Your task to perform on an android device: choose inbox layout in the gmail app Image 0: 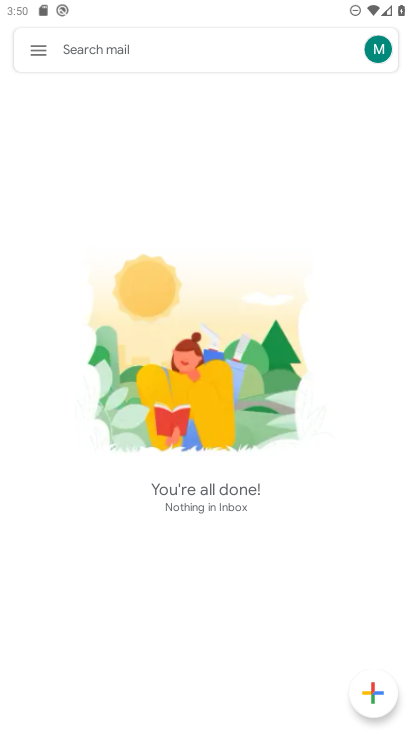
Step 0: drag from (152, 146) to (162, 512)
Your task to perform on an android device: choose inbox layout in the gmail app Image 1: 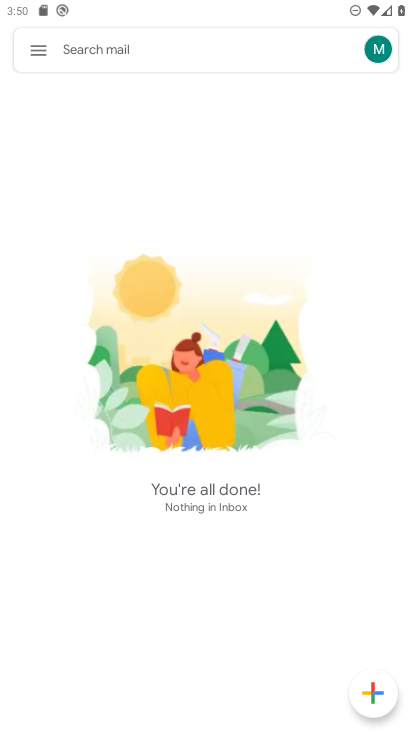
Step 1: task complete